Your task to perform on an android device: turn pop-ups off in chrome Image 0: 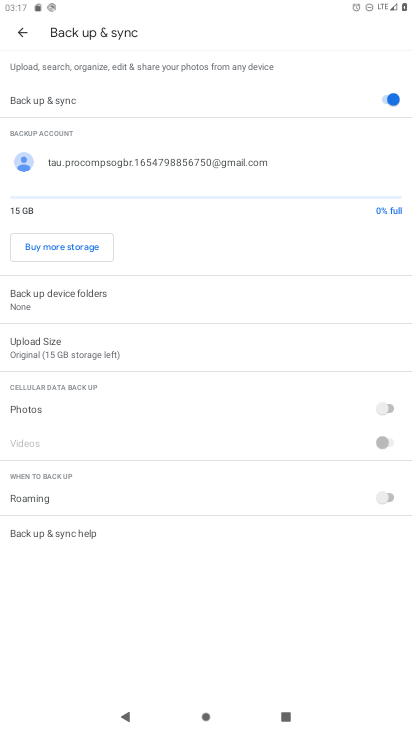
Step 0: press home button
Your task to perform on an android device: turn pop-ups off in chrome Image 1: 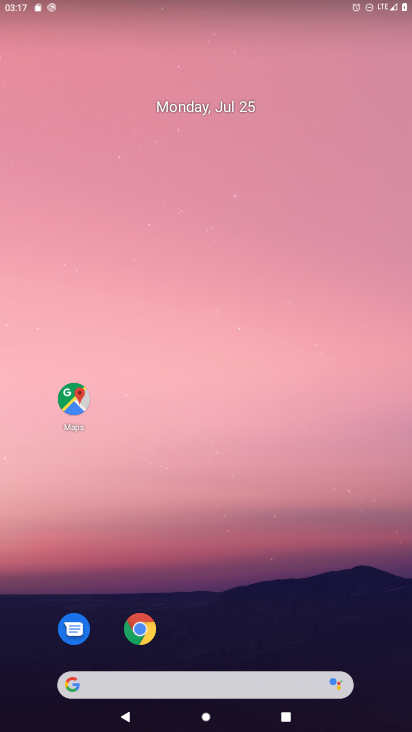
Step 1: drag from (247, 604) to (366, 173)
Your task to perform on an android device: turn pop-ups off in chrome Image 2: 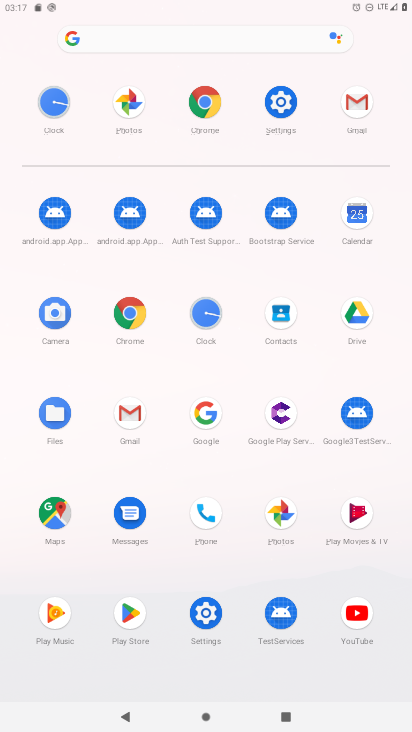
Step 2: click (137, 308)
Your task to perform on an android device: turn pop-ups off in chrome Image 3: 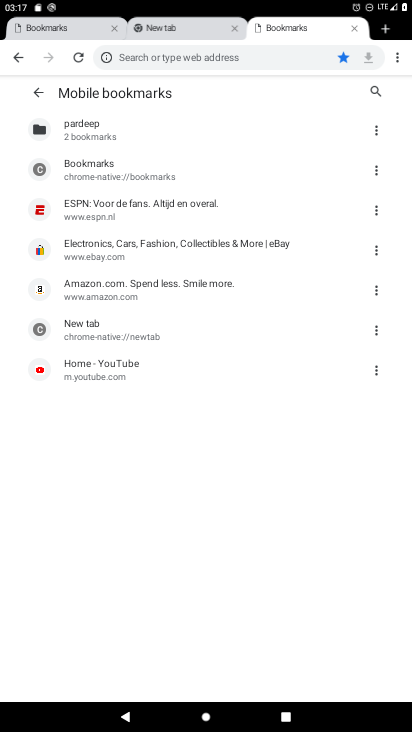
Step 3: drag from (395, 58) to (278, 257)
Your task to perform on an android device: turn pop-ups off in chrome Image 4: 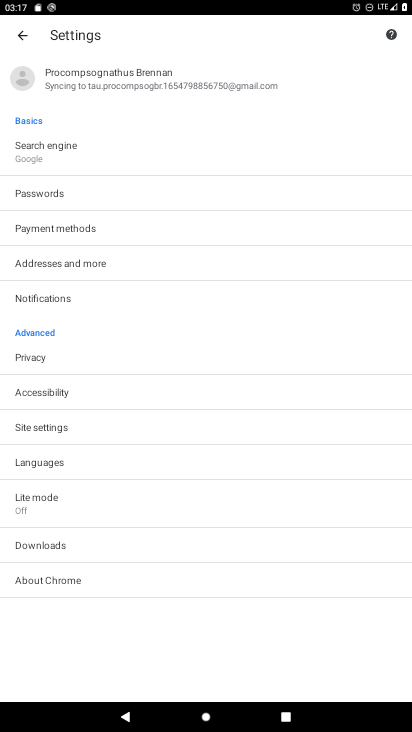
Step 4: click (88, 428)
Your task to perform on an android device: turn pop-ups off in chrome Image 5: 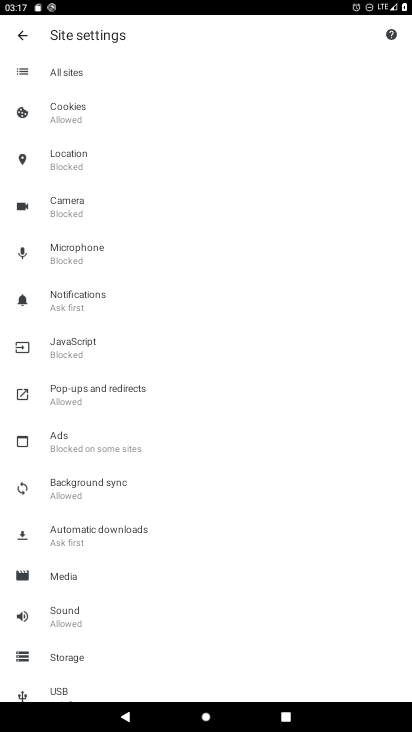
Step 5: click (97, 381)
Your task to perform on an android device: turn pop-ups off in chrome Image 6: 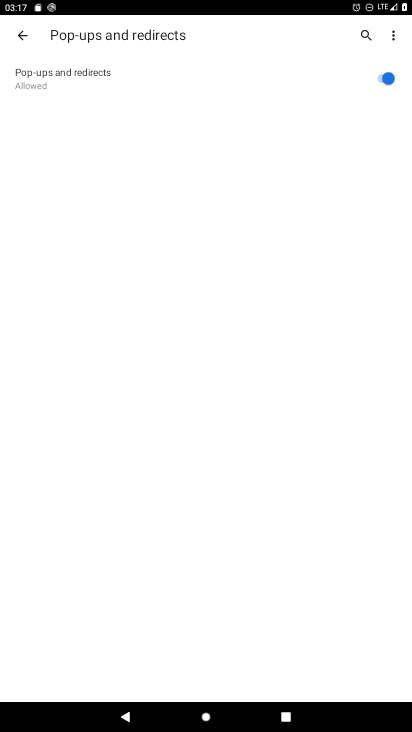
Step 6: click (294, 76)
Your task to perform on an android device: turn pop-ups off in chrome Image 7: 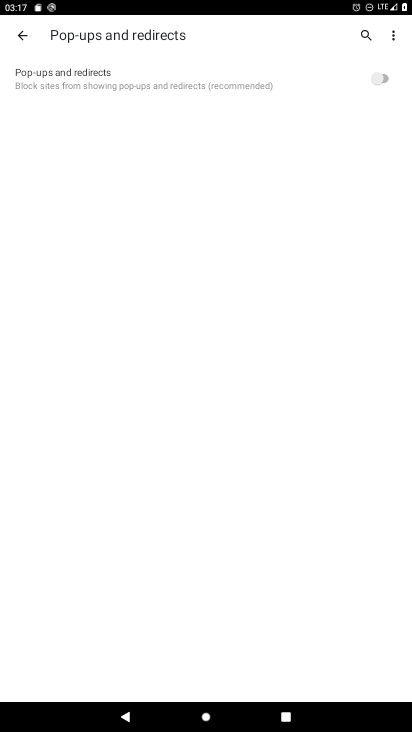
Step 7: task complete